Your task to perform on an android device: allow cookies in the chrome app Image 0: 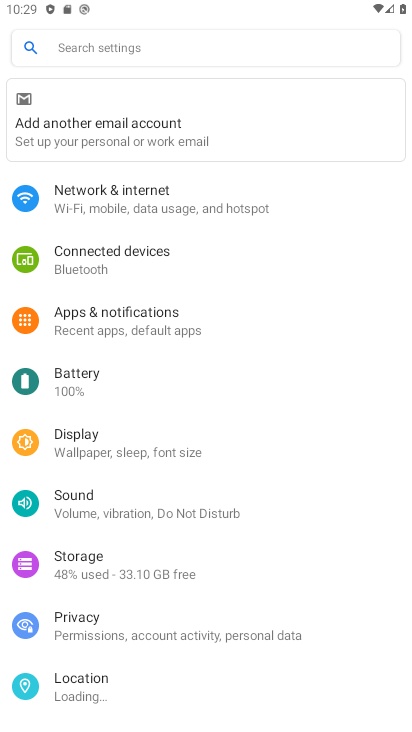
Step 0: press home button
Your task to perform on an android device: allow cookies in the chrome app Image 1: 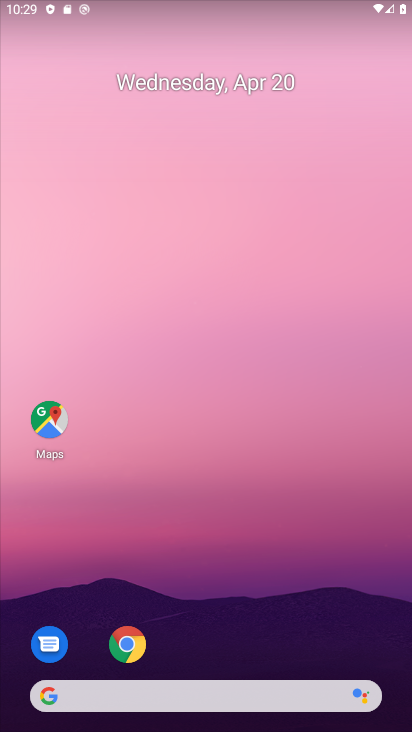
Step 1: drag from (332, 643) to (338, 177)
Your task to perform on an android device: allow cookies in the chrome app Image 2: 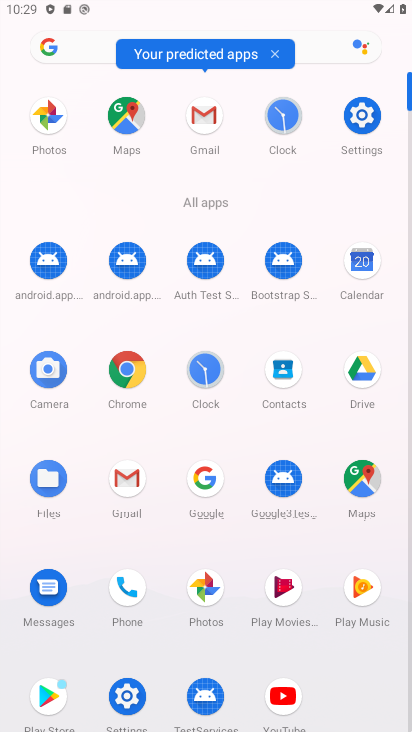
Step 2: click (134, 376)
Your task to perform on an android device: allow cookies in the chrome app Image 3: 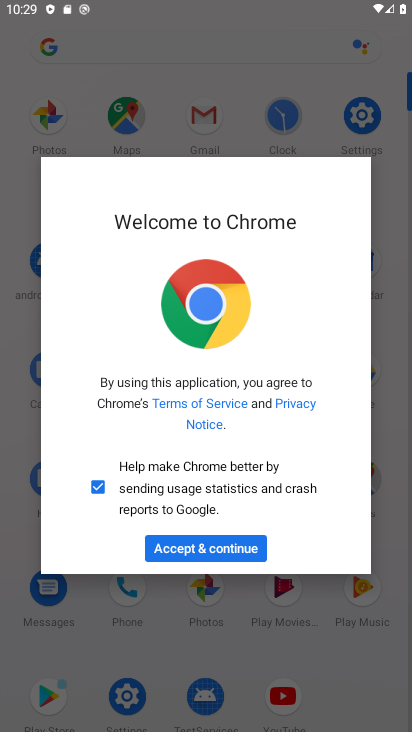
Step 3: click (250, 546)
Your task to perform on an android device: allow cookies in the chrome app Image 4: 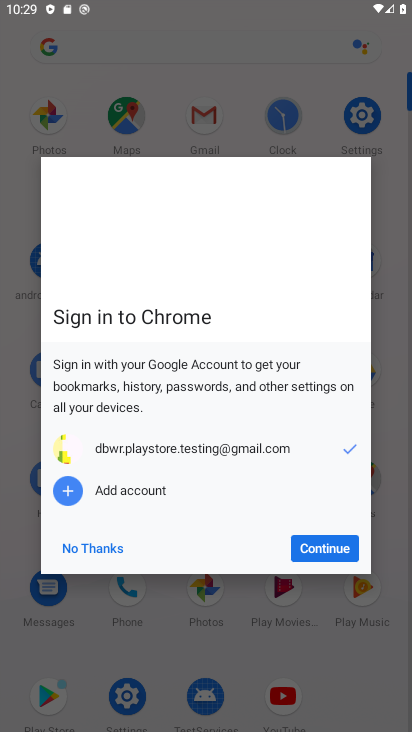
Step 4: click (312, 545)
Your task to perform on an android device: allow cookies in the chrome app Image 5: 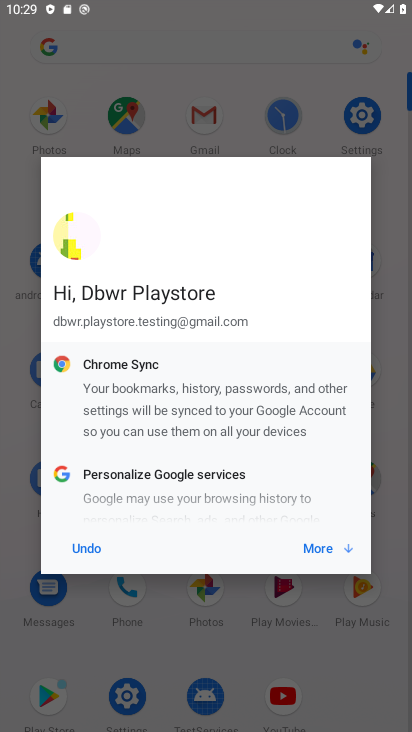
Step 5: click (308, 546)
Your task to perform on an android device: allow cookies in the chrome app Image 6: 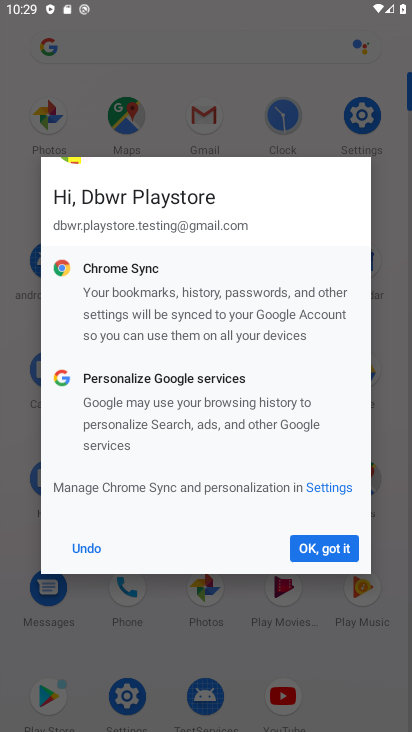
Step 6: click (307, 547)
Your task to perform on an android device: allow cookies in the chrome app Image 7: 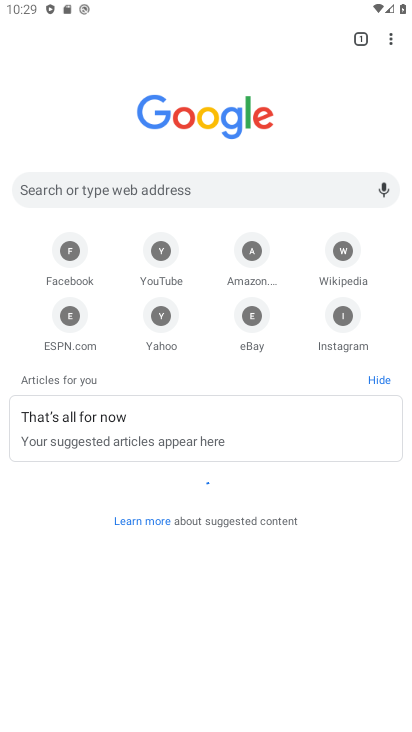
Step 7: drag from (390, 38) to (272, 327)
Your task to perform on an android device: allow cookies in the chrome app Image 8: 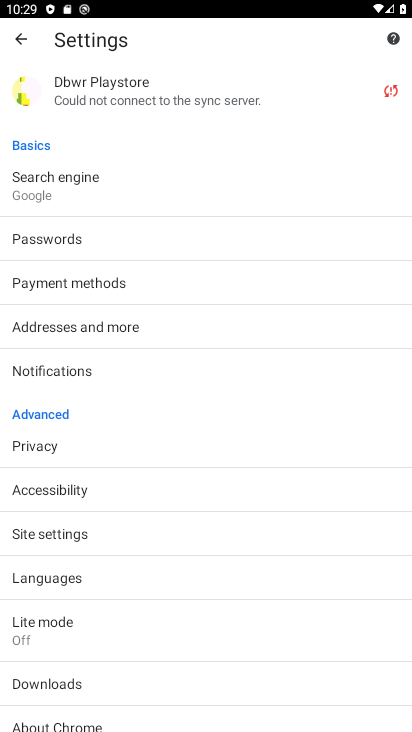
Step 8: click (65, 529)
Your task to perform on an android device: allow cookies in the chrome app Image 9: 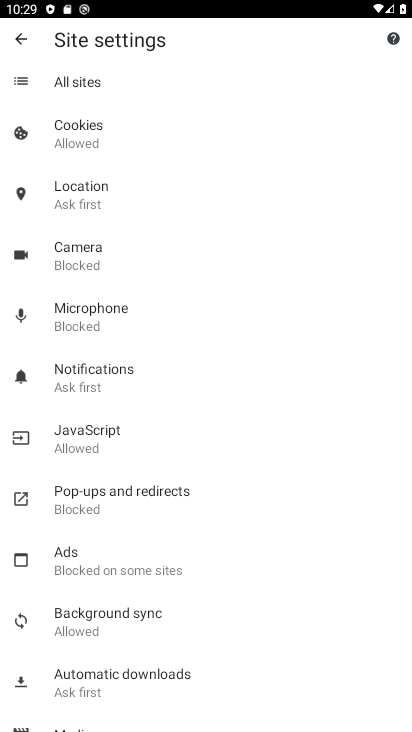
Step 9: click (83, 117)
Your task to perform on an android device: allow cookies in the chrome app Image 10: 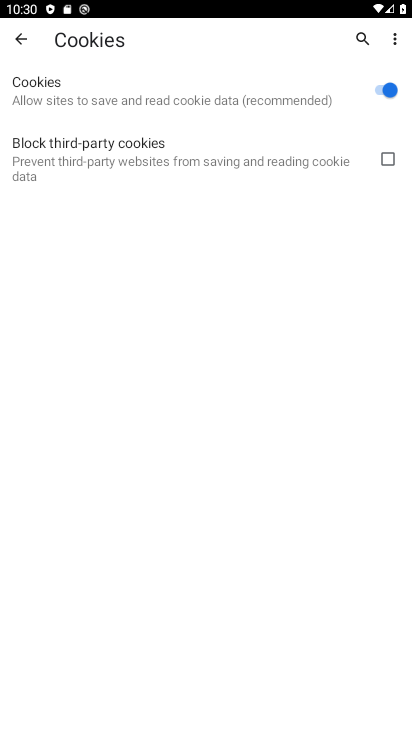
Step 10: task complete